Your task to perform on an android device: Go to settings Image 0: 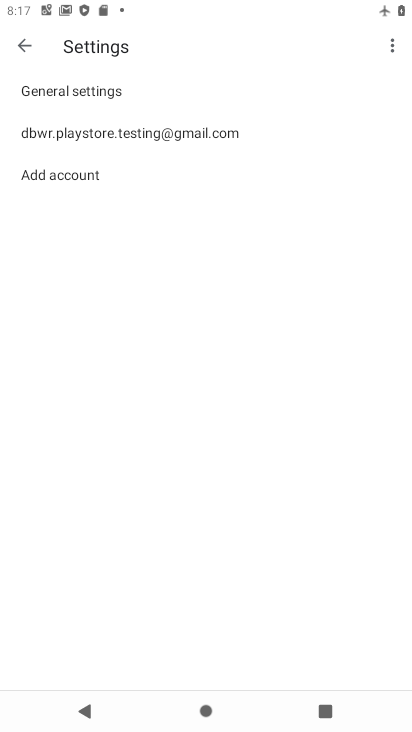
Step 0: press home button
Your task to perform on an android device: Go to settings Image 1: 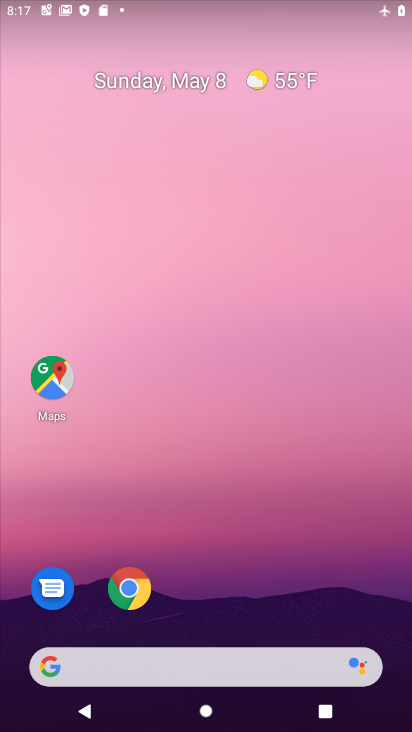
Step 1: drag from (297, 605) to (276, 31)
Your task to perform on an android device: Go to settings Image 2: 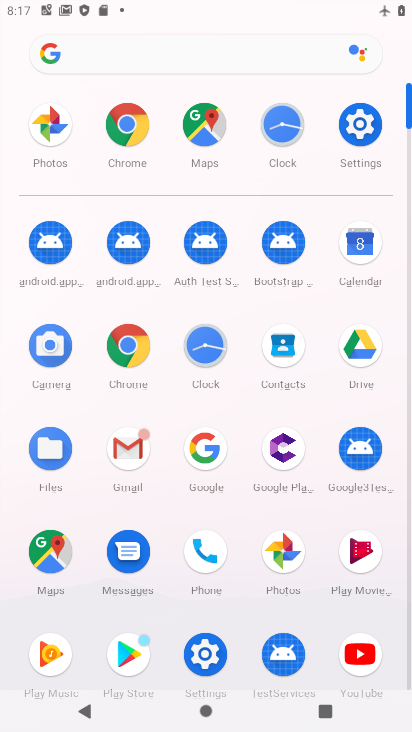
Step 2: click (224, 664)
Your task to perform on an android device: Go to settings Image 3: 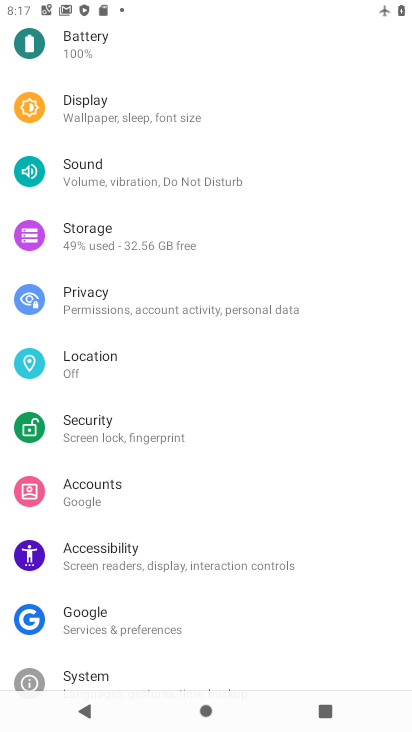
Step 3: task complete